Your task to perform on an android device: What's on my calendar tomorrow? Image 0: 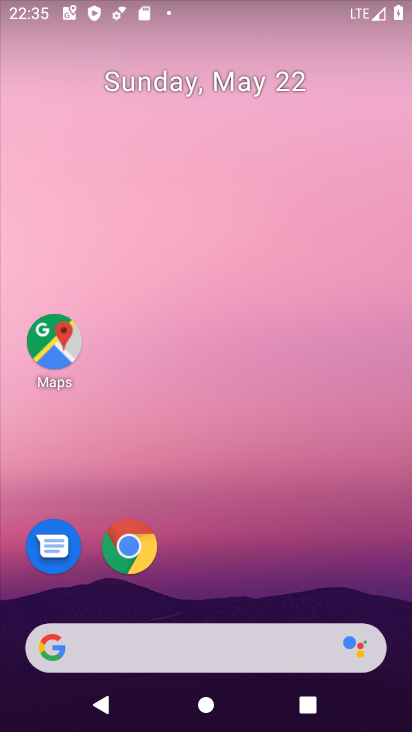
Step 0: drag from (202, 604) to (294, 32)
Your task to perform on an android device: What's on my calendar tomorrow? Image 1: 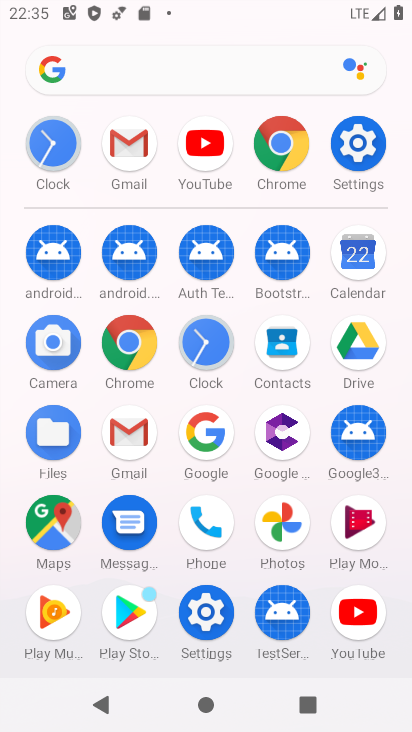
Step 1: click (353, 252)
Your task to perform on an android device: What's on my calendar tomorrow? Image 2: 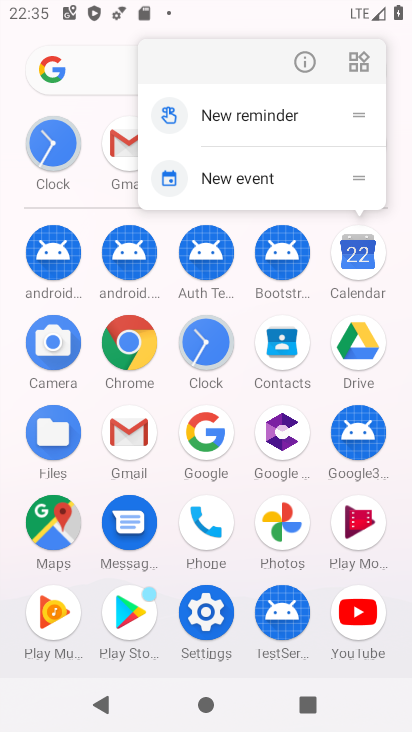
Step 2: click (296, 66)
Your task to perform on an android device: What's on my calendar tomorrow? Image 3: 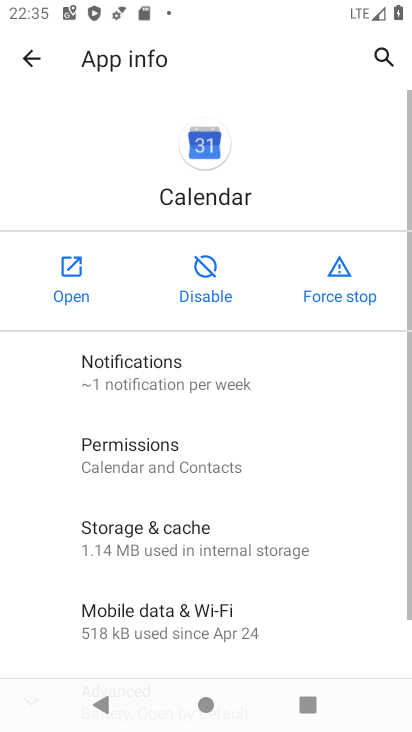
Step 3: click (59, 286)
Your task to perform on an android device: What's on my calendar tomorrow? Image 4: 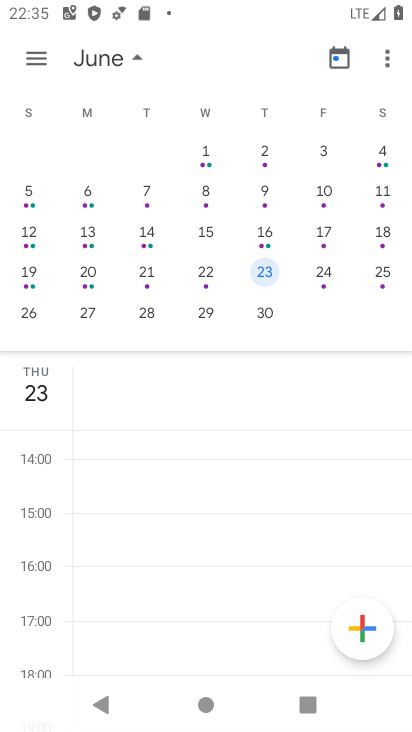
Step 4: drag from (26, 229) to (387, 216)
Your task to perform on an android device: What's on my calendar tomorrow? Image 5: 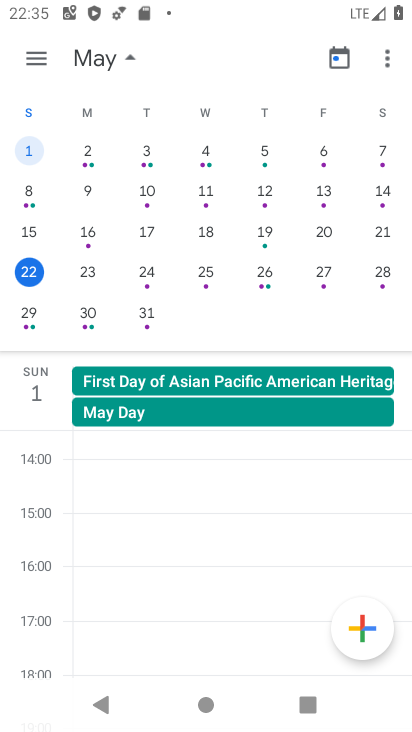
Step 5: click (83, 276)
Your task to perform on an android device: What's on my calendar tomorrow? Image 6: 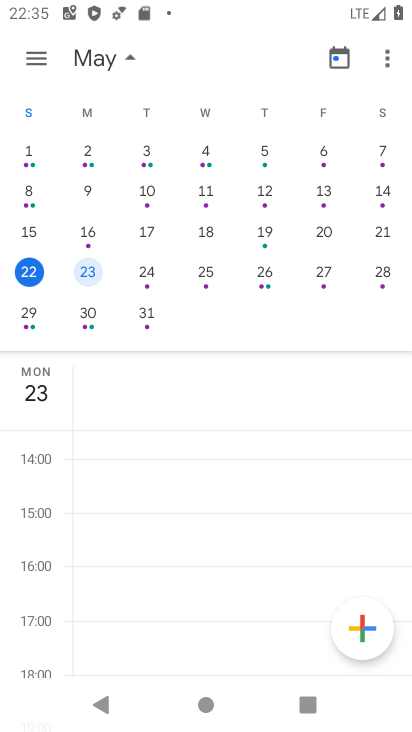
Step 6: task complete